Your task to perform on an android device: Do I have any events tomorrow? Image 0: 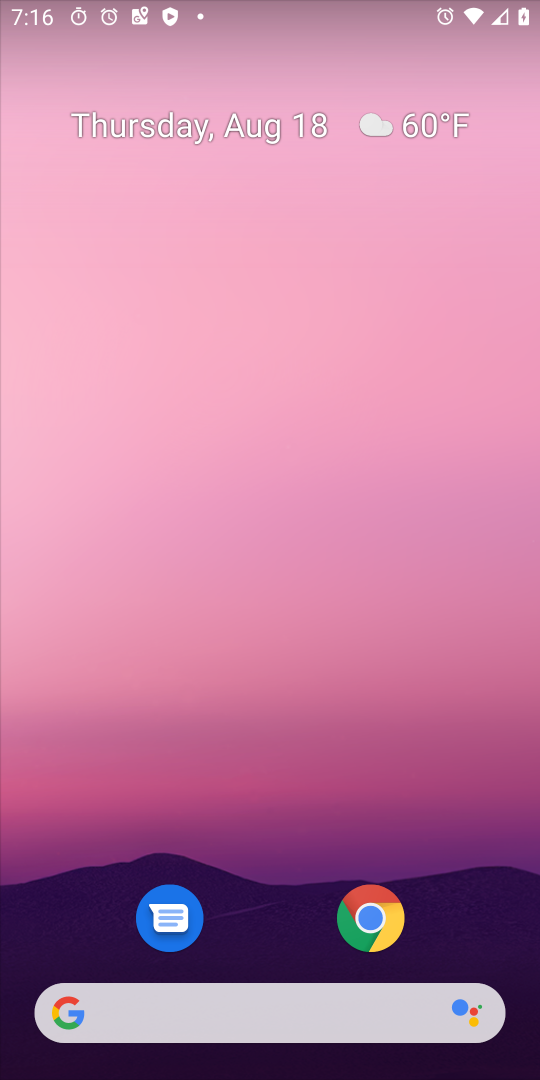
Step 0: press home button
Your task to perform on an android device: Do I have any events tomorrow? Image 1: 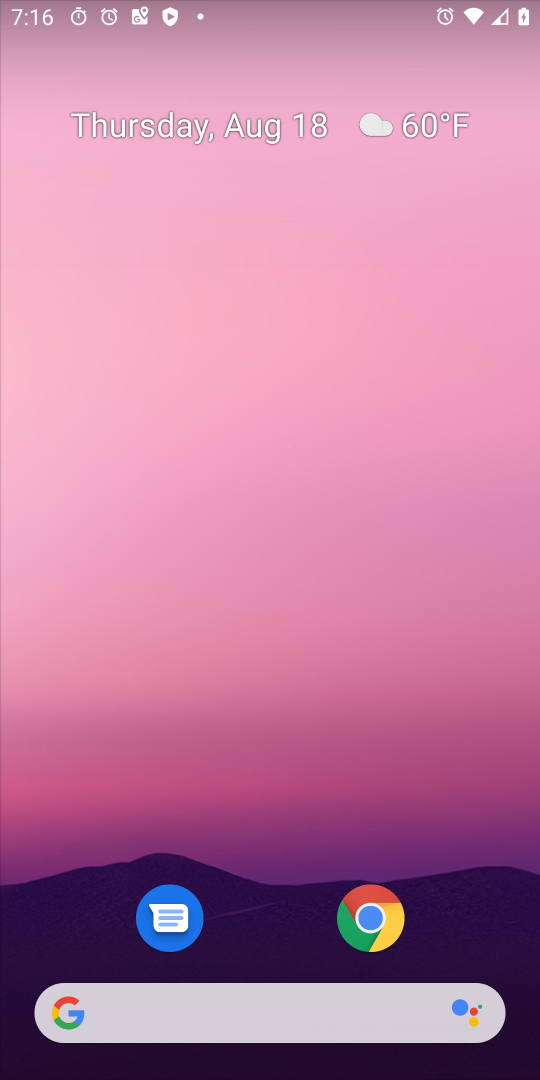
Step 1: drag from (280, 816) to (226, 7)
Your task to perform on an android device: Do I have any events tomorrow? Image 2: 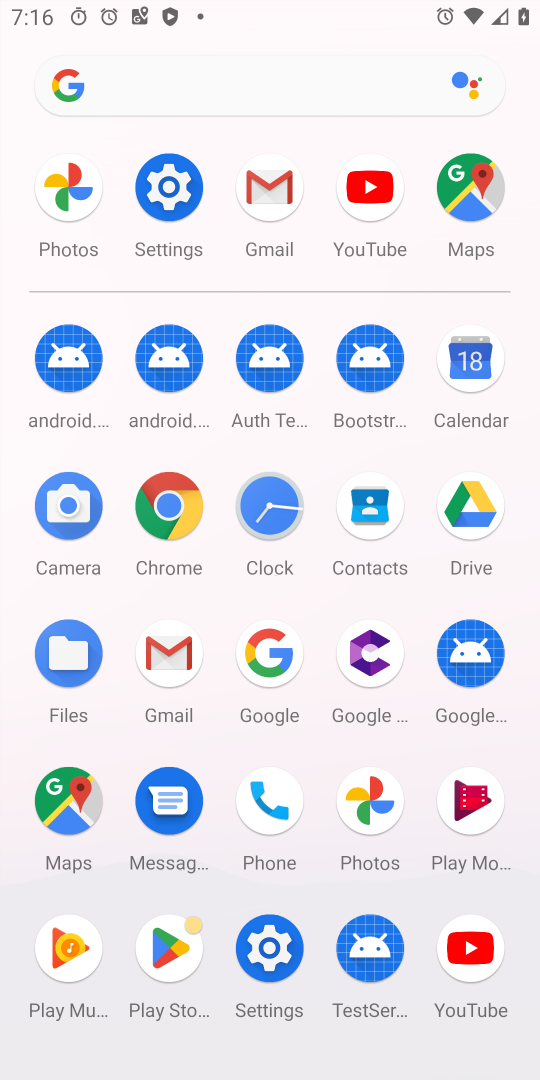
Step 2: click (473, 392)
Your task to perform on an android device: Do I have any events tomorrow? Image 3: 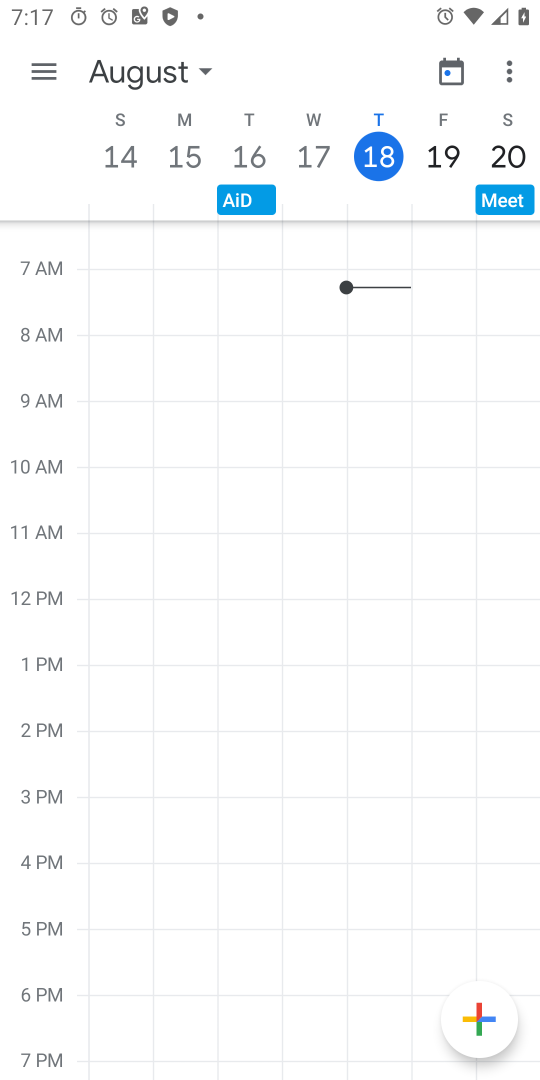
Step 3: click (443, 162)
Your task to perform on an android device: Do I have any events tomorrow? Image 4: 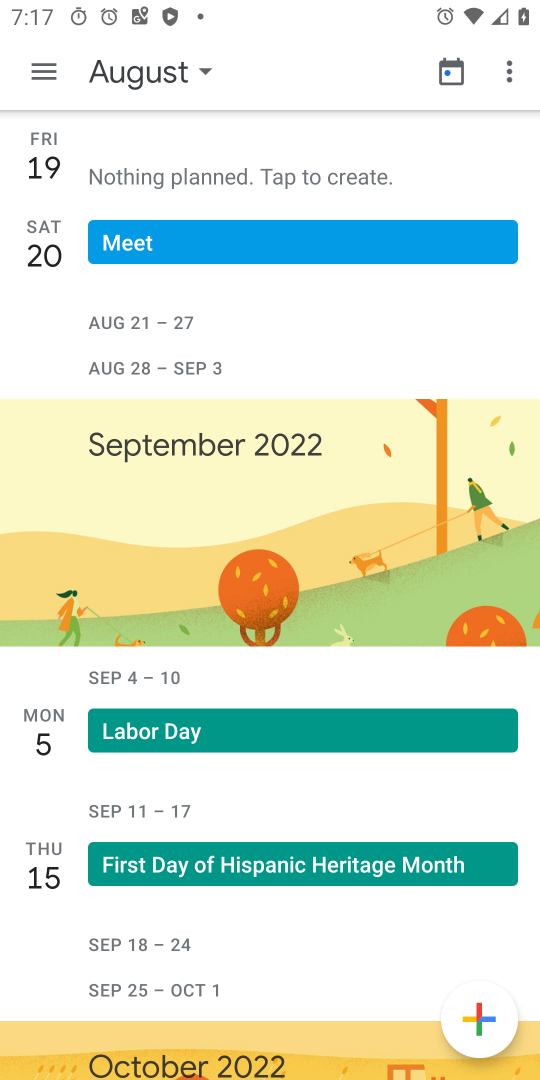
Step 4: task complete